Your task to perform on an android device: turn off notifications in google photos Image 0: 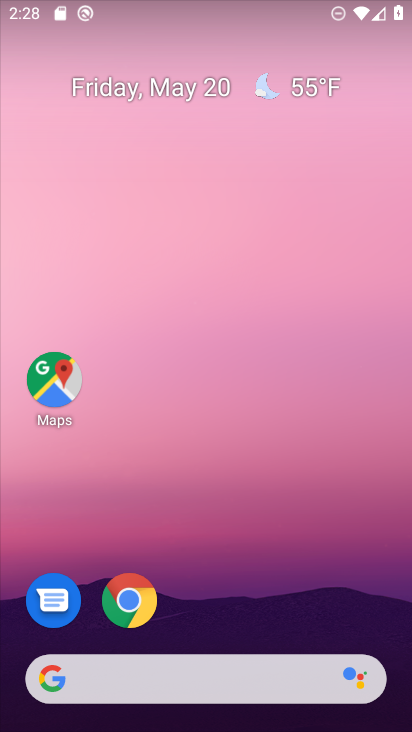
Step 0: drag from (272, 694) to (317, 56)
Your task to perform on an android device: turn off notifications in google photos Image 1: 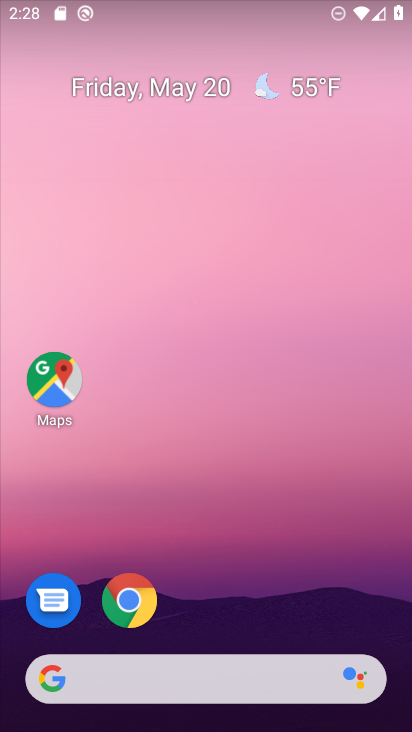
Step 1: drag from (235, 628) to (271, 15)
Your task to perform on an android device: turn off notifications in google photos Image 2: 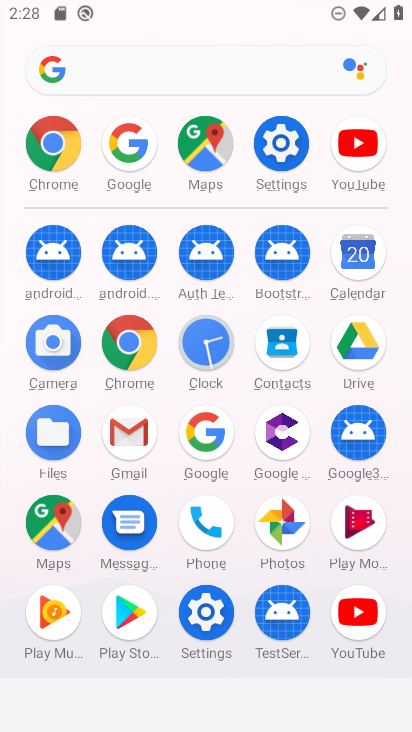
Step 2: click (283, 520)
Your task to perform on an android device: turn off notifications in google photos Image 3: 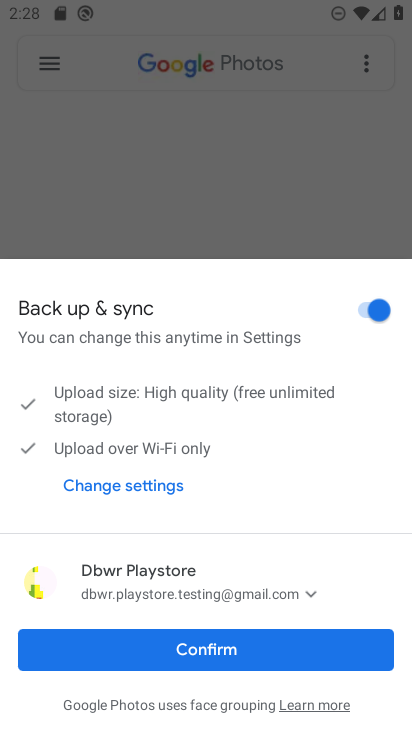
Step 3: click (280, 643)
Your task to perform on an android device: turn off notifications in google photos Image 4: 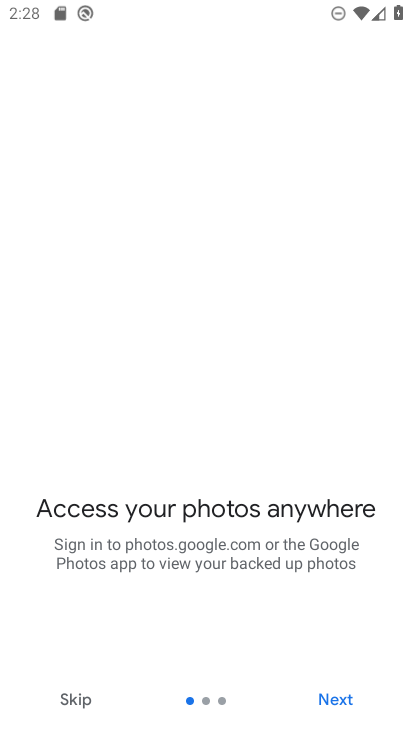
Step 4: click (339, 699)
Your task to perform on an android device: turn off notifications in google photos Image 5: 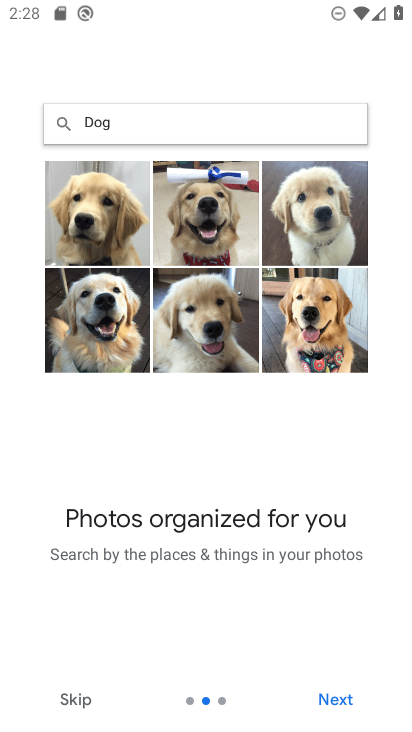
Step 5: click (341, 699)
Your task to perform on an android device: turn off notifications in google photos Image 6: 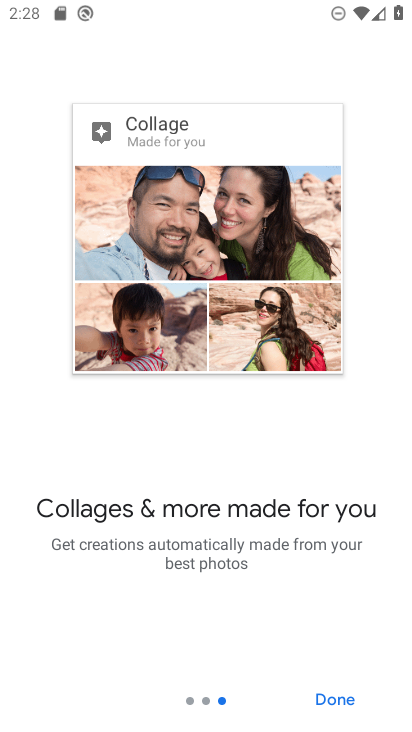
Step 6: click (341, 699)
Your task to perform on an android device: turn off notifications in google photos Image 7: 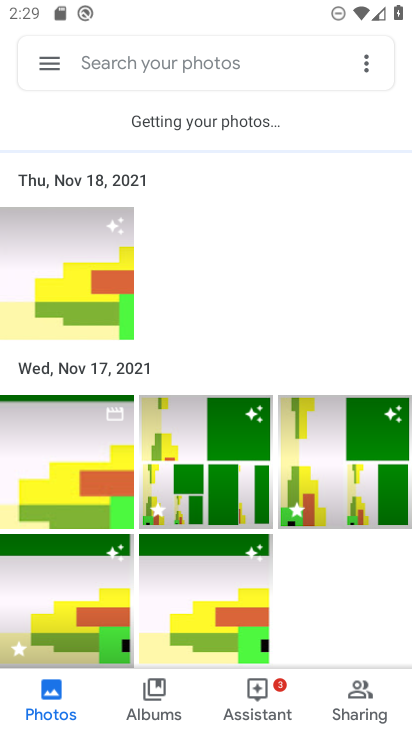
Step 7: click (59, 67)
Your task to perform on an android device: turn off notifications in google photos Image 8: 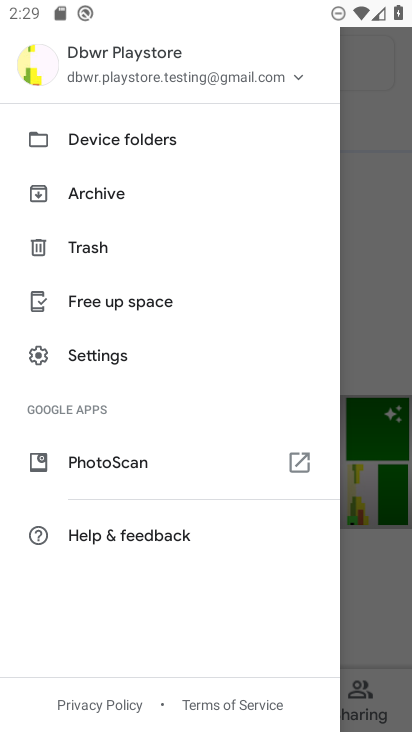
Step 8: click (132, 350)
Your task to perform on an android device: turn off notifications in google photos Image 9: 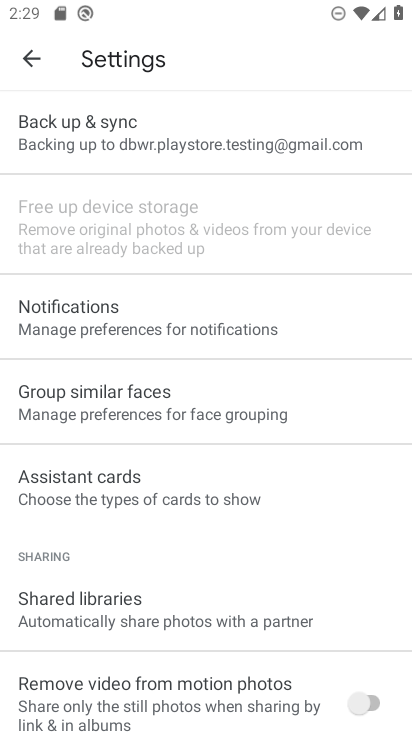
Step 9: drag from (148, 556) to (154, 484)
Your task to perform on an android device: turn off notifications in google photos Image 10: 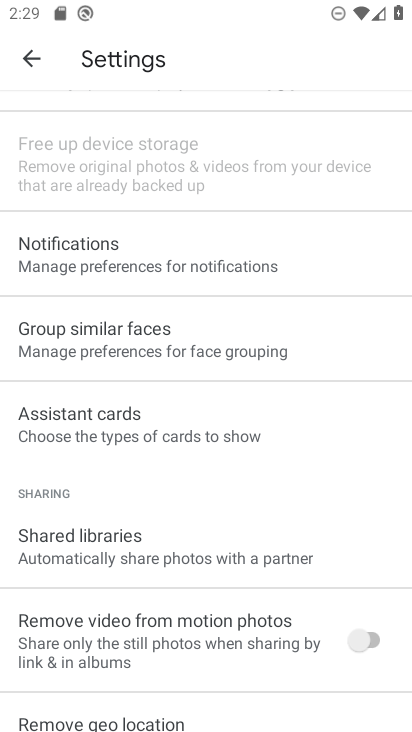
Step 10: click (197, 239)
Your task to perform on an android device: turn off notifications in google photos Image 11: 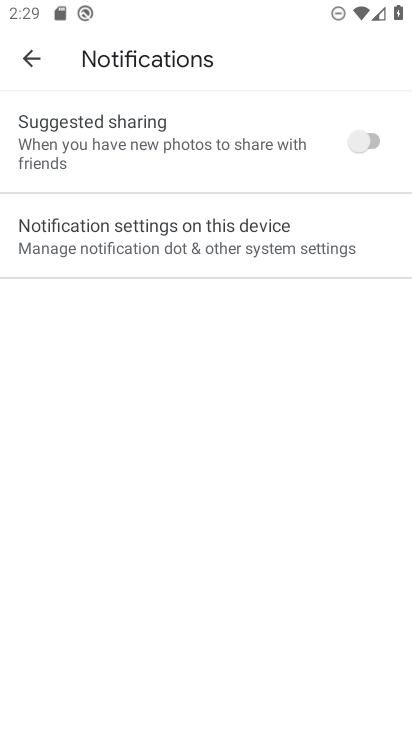
Step 11: click (201, 252)
Your task to perform on an android device: turn off notifications in google photos Image 12: 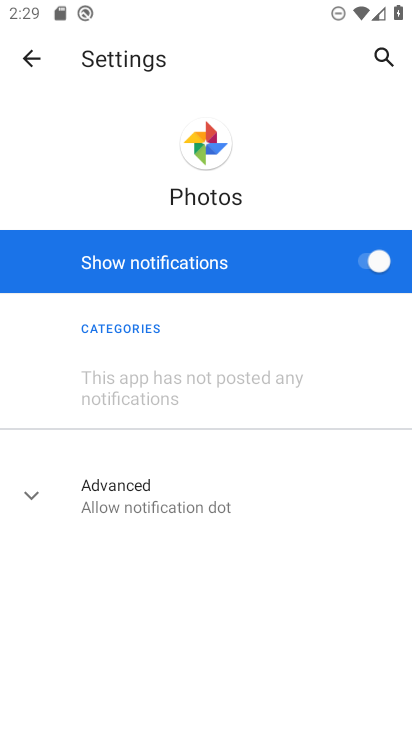
Step 12: click (364, 250)
Your task to perform on an android device: turn off notifications in google photos Image 13: 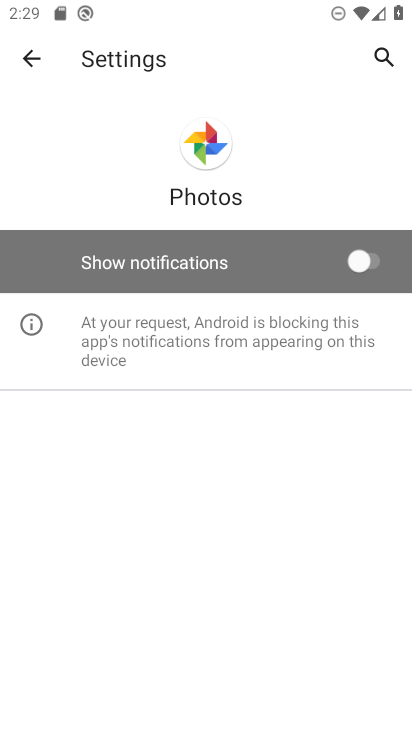
Step 13: task complete